Your task to perform on an android device: Go to display settings Image 0: 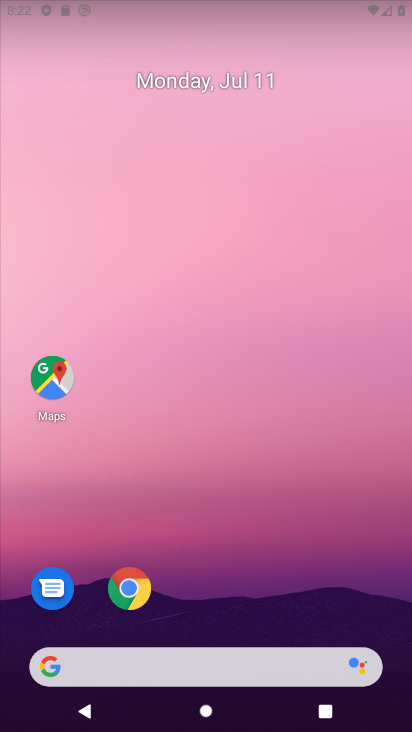
Step 0: drag from (143, 718) to (337, 8)
Your task to perform on an android device: Go to display settings Image 1: 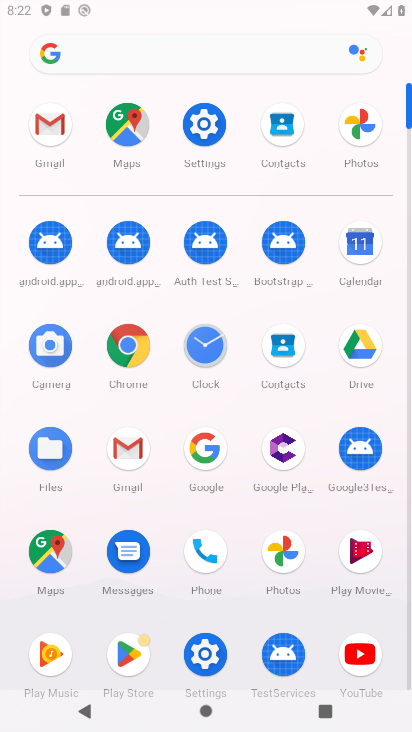
Step 1: click (219, 116)
Your task to perform on an android device: Go to display settings Image 2: 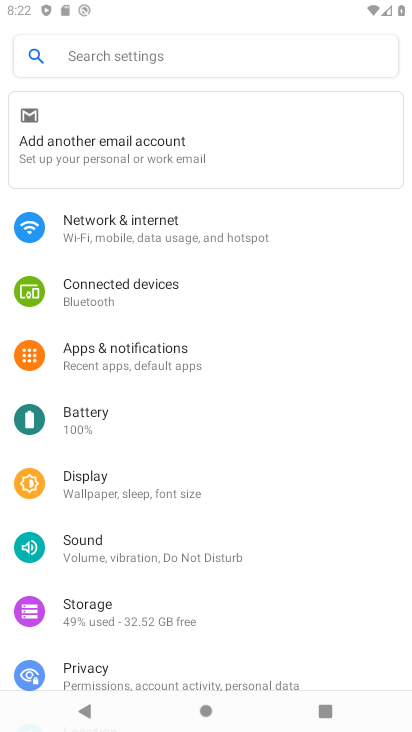
Step 2: click (154, 497)
Your task to perform on an android device: Go to display settings Image 3: 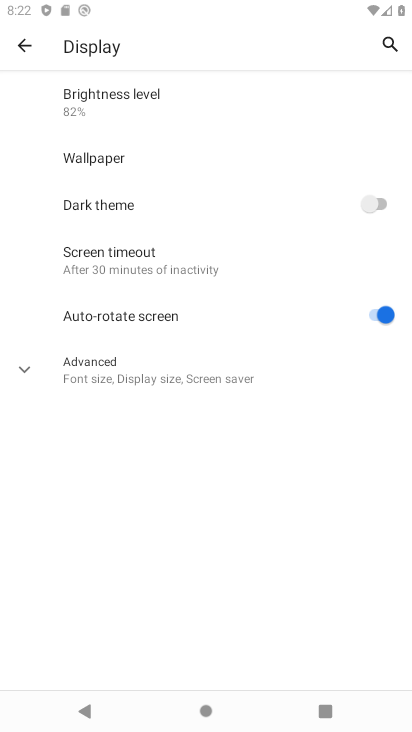
Step 3: task complete